Your task to perform on an android device: Open Youtube and go to the subscriptions tab Image 0: 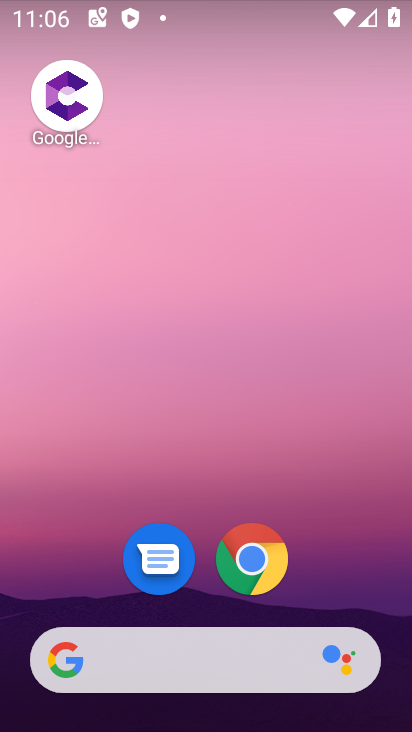
Step 0: drag from (196, 526) to (249, 12)
Your task to perform on an android device: Open Youtube and go to the subscriptions tab Image 1: 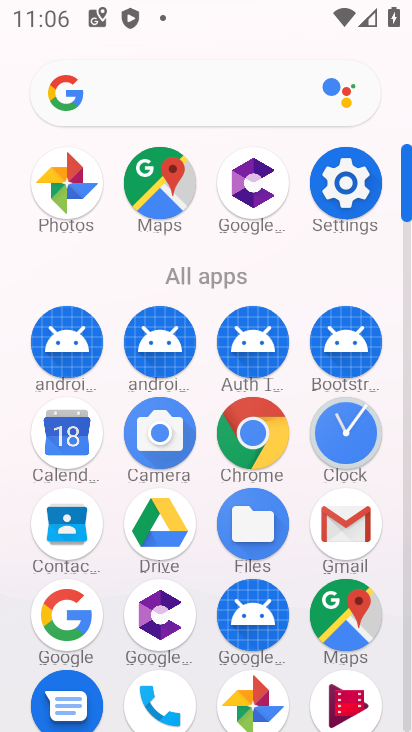
Step 1: drag from (163, 621) to (290, 79)
Your task to perform on an android device: Open Youtube and go to the subscriptions tab Image 2: 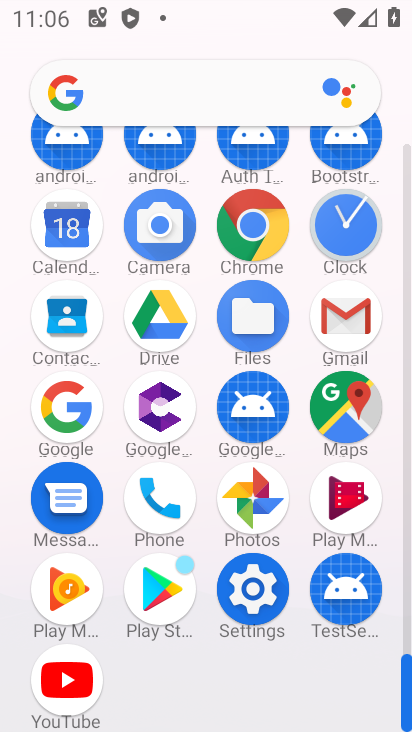
Step 2: click (57, 694)
Your task to perform on an android device: Open Youtube and go to the subscriptions tab Image 3: 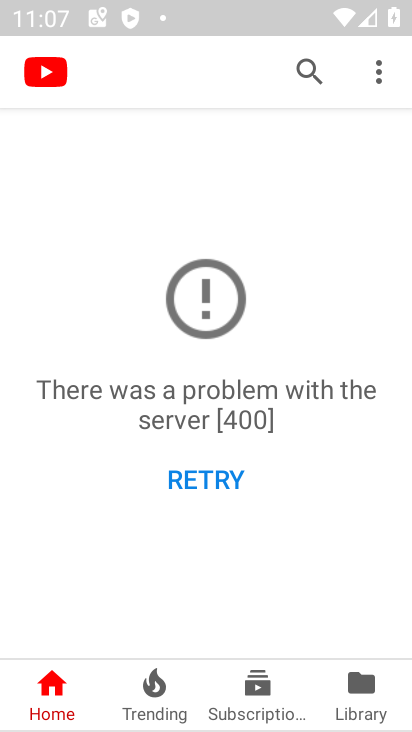
Step 3: click (258, 702)
Your task to perform on an android device: Open Youtube and go to the subscriptions tab Image 4: 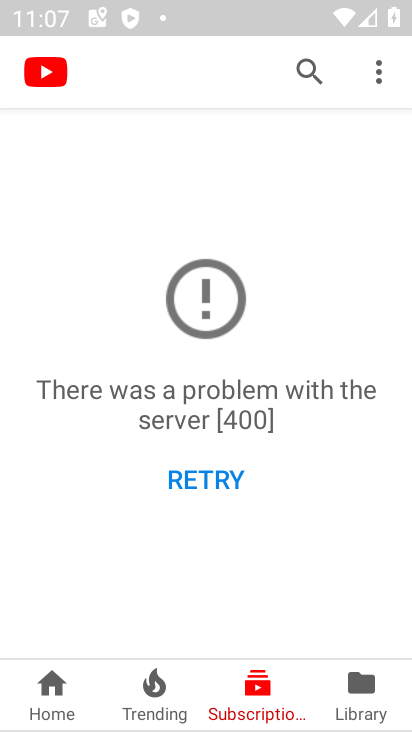
Step 4: task complete